Your task to perform on an android device: set the timer Image 0: 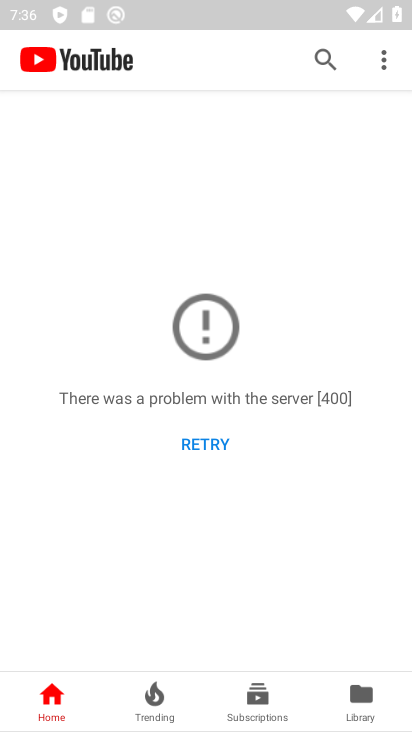
Step 0: press home button
Your task to perform on an android device: set the timer Image 1: 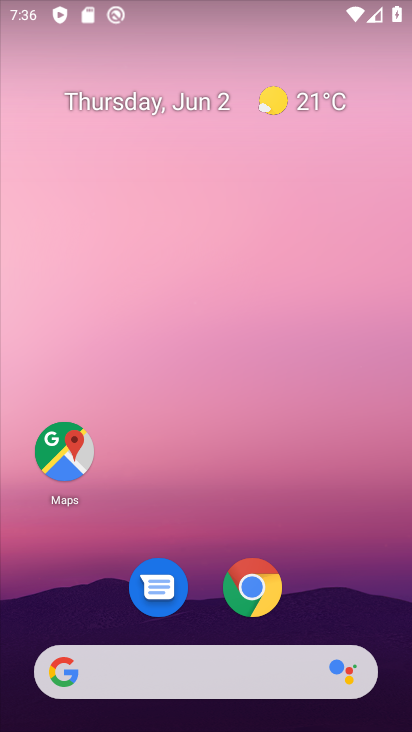
Step 1: drag from (345, 609) to (345, 5)
Your task to perform on an android device: set the timer Image 2: 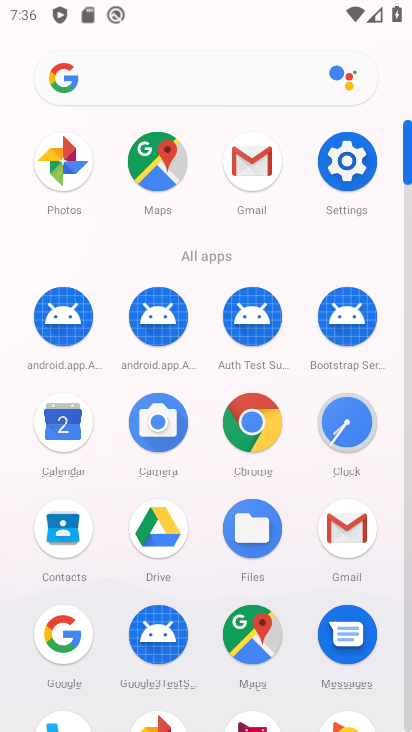
Step 2: click (344, 425)
Your task to perform on an android device: set the timer Image 3: 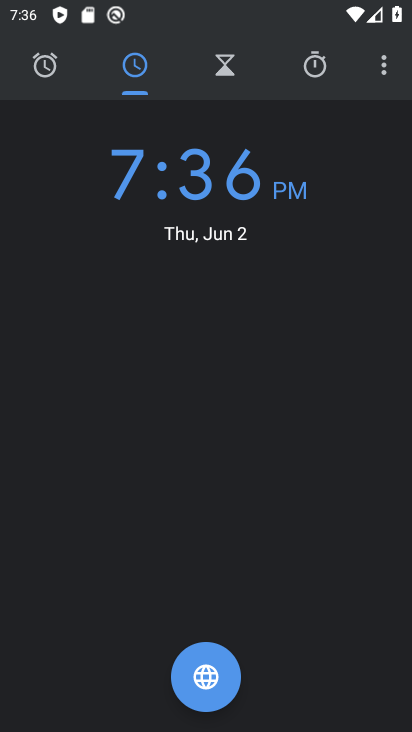
Step 3: click (225, 73)
Your task to perform on an android device: set the timer Image 4: 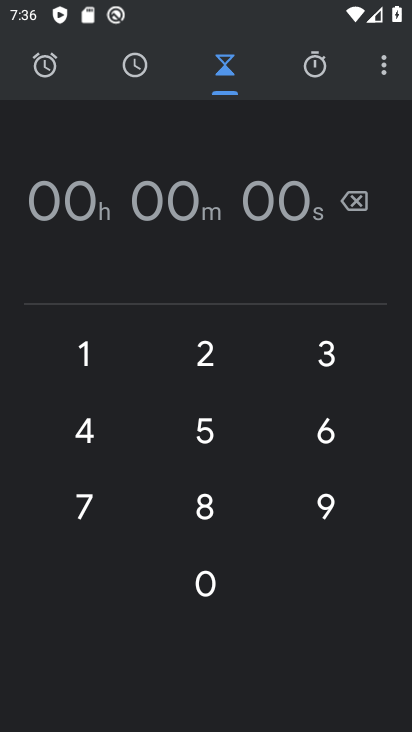
Step 4: click (214, 362)
Your task to perform on an android device: set the timer Image 5: 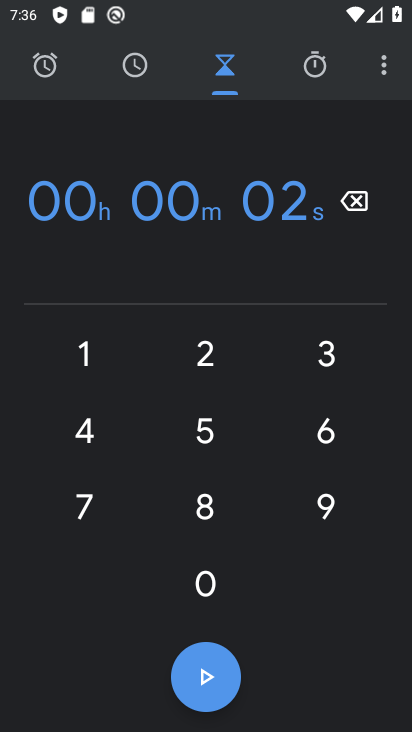
Step 5: click (210, 569)
Your task to perform on an android device: set the timer Image 6: 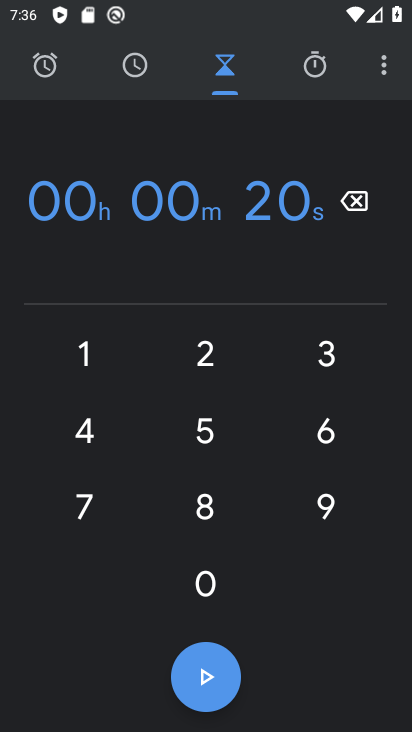
Step 6: click (208, 658)
Your task to perform on an android device: set the timer Image 7: 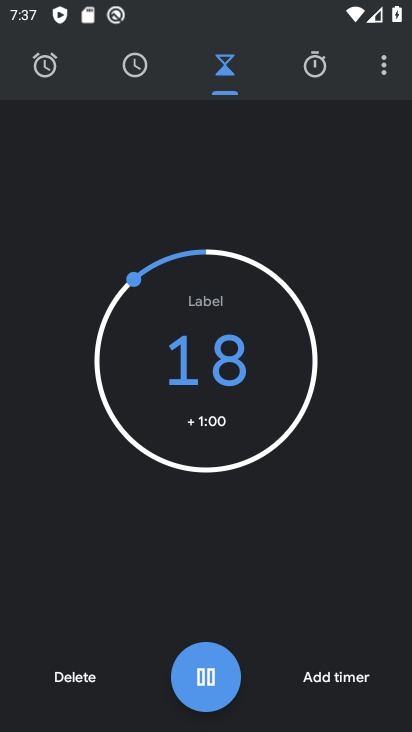
Step 7: task complete